Your task to perform on an android device: Go to Amazon Image 0: 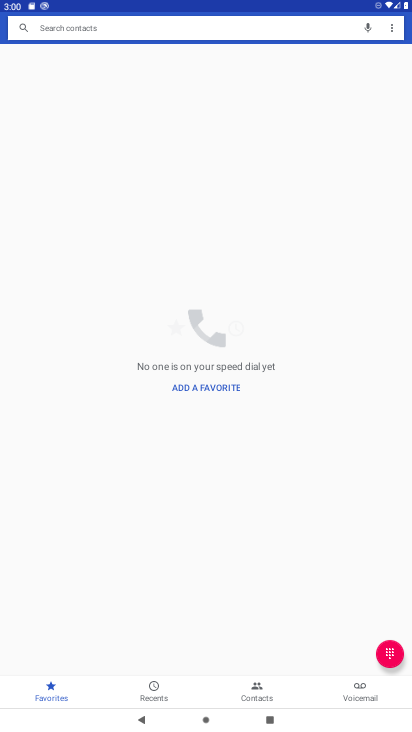
Step 0: press home button
Your task to perform on an android device: Go to Amazon Image 1: 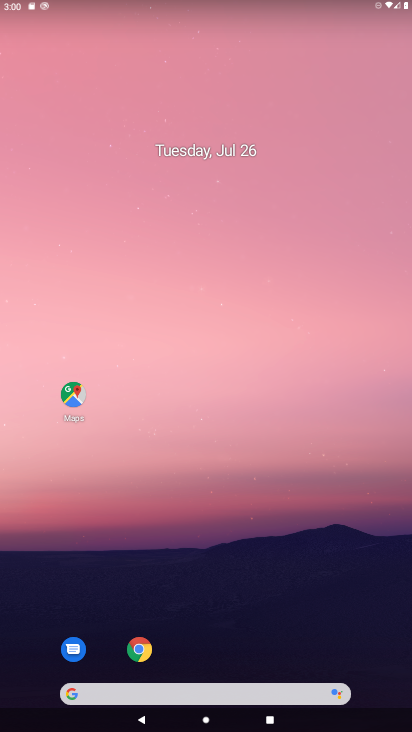
Step 1: click (146, 650)
Your task to perform on an android device: Go to Amazon Image 2: 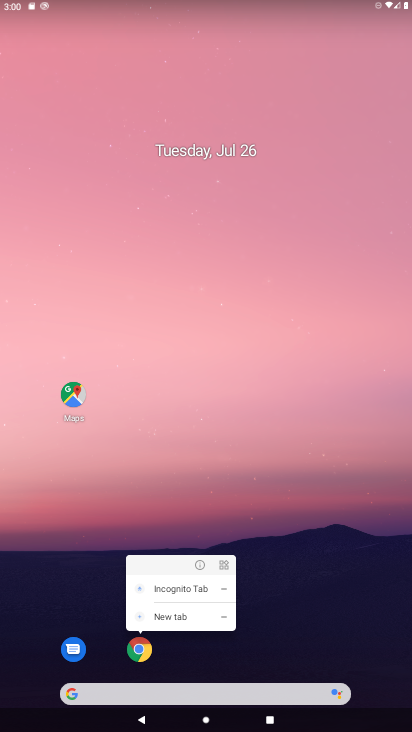
Step 2: click (139, 653)
Your task to perform on an android device: Go to Amazon Image 3: 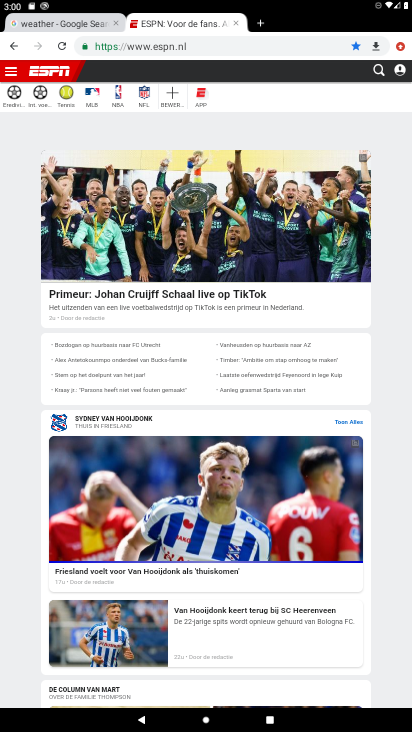
Step 3: click (190, 45)
Your task to perform on an android device: Go to Amazon Image 4: 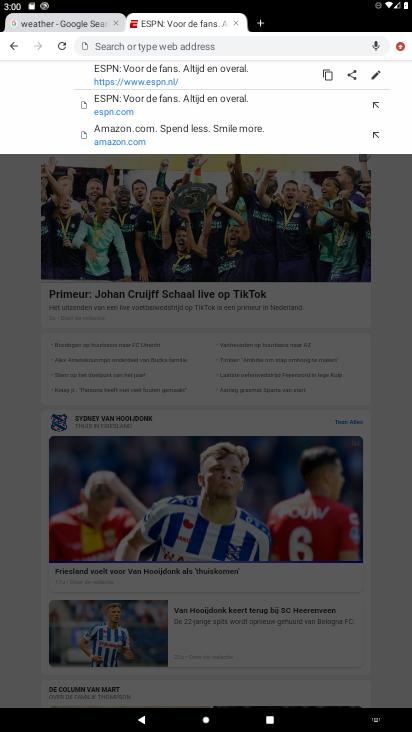
Step 4: type "amazon"
Your task to perform on an android device: Go to Amazon Image 5: 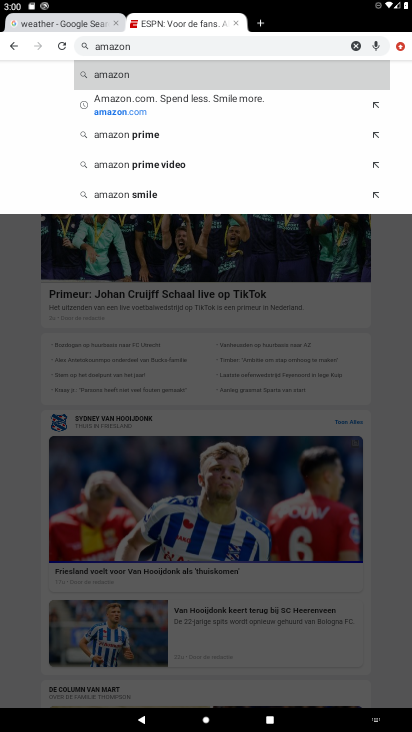
Step 5: click (162, 99)
Your task to perform on an android device: Go to Amazon Image 6: 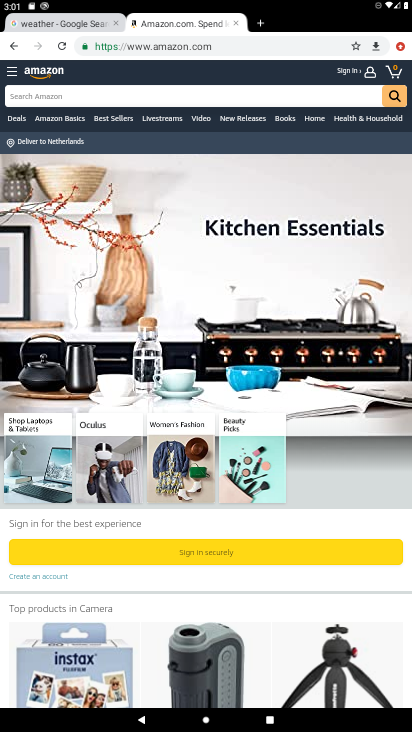
Step 6: task complete